Your task to perform on an android device: Play the last video I watched on Youtube Image 0: 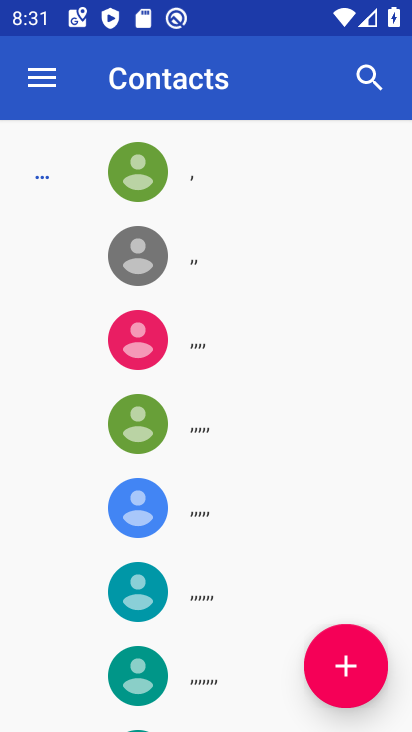
Step 0: press home button
Your task to perform on an android device: Play the last video I watched on Youtube Image 1: 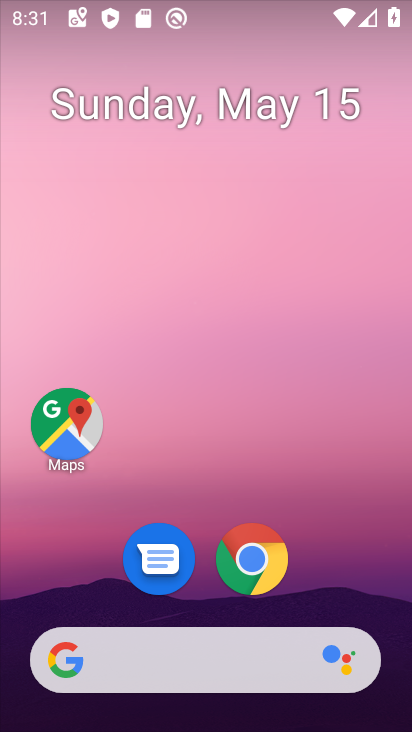
Step 1: drag from (340, 594) to (338, 236)
Your task to perform on an android device: Play the last video I watched on Youtube Image 2: 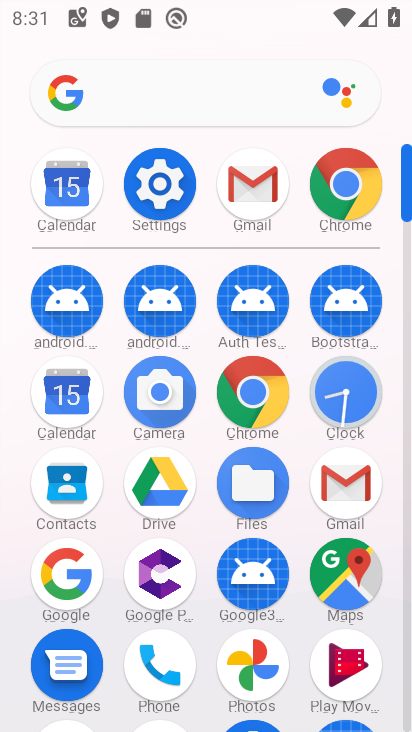
Step 2: click (403, 690)
Your task to perform on an android device: Play the last video I watched on Youtube Image 3: 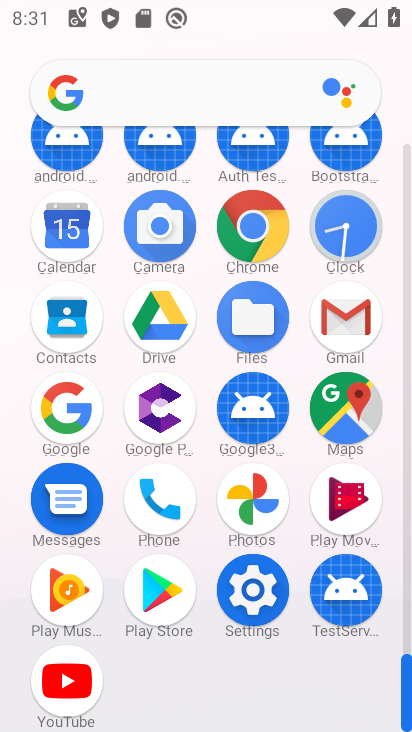
Step 3: click (84, 698)
Your task to perform on an android device: Play the last video I watched on Youtube Image 4: 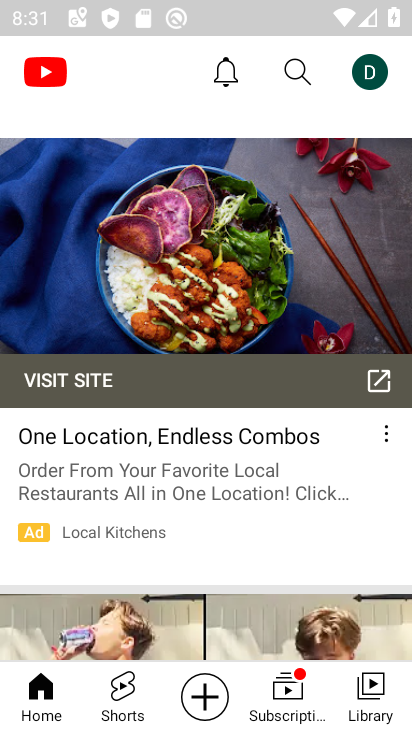
Step 4: click (355, 703)
Your task to perform on an android device: Play the last video I watched on Youtube Image 5: 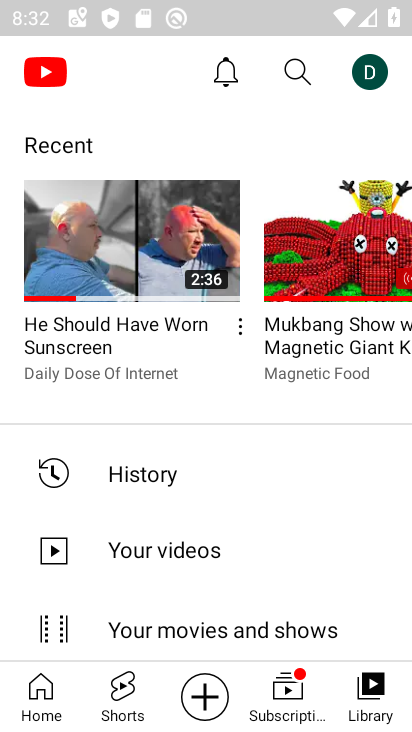
Step 5: task complete